Your task to perform on an android device: Go to privacy settings Image 0: 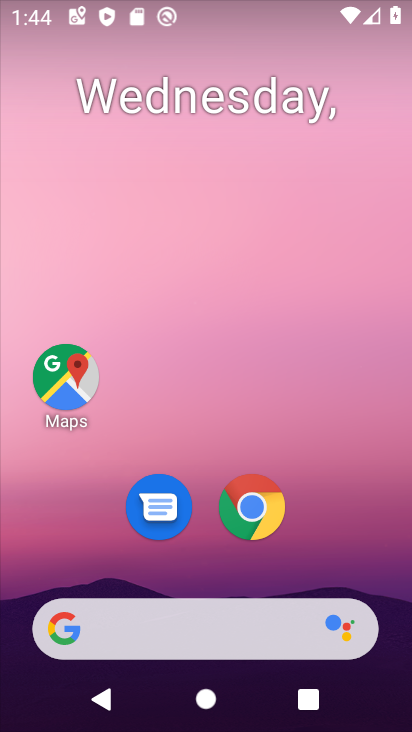
Step 0: drag from (362, 568) to (312, 200)
Your task to perform on an android device: Go to privacy settings Image 1: 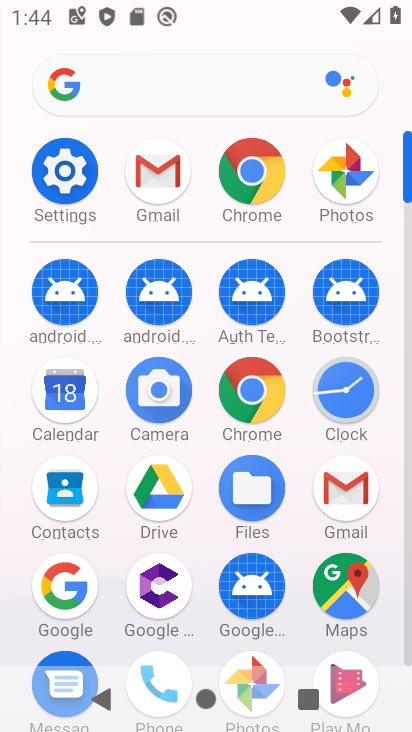
Step 1: click (84, 178)
Your task to perform on an android device: Go to privacy settings Image 2: 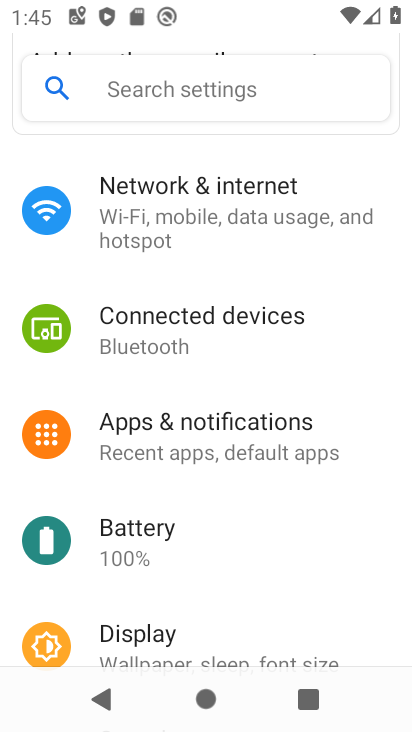
Step 2: drag from (214, 556) to (224, 250)
Your task to perform on an android device: Go to privacy settings Image 3: 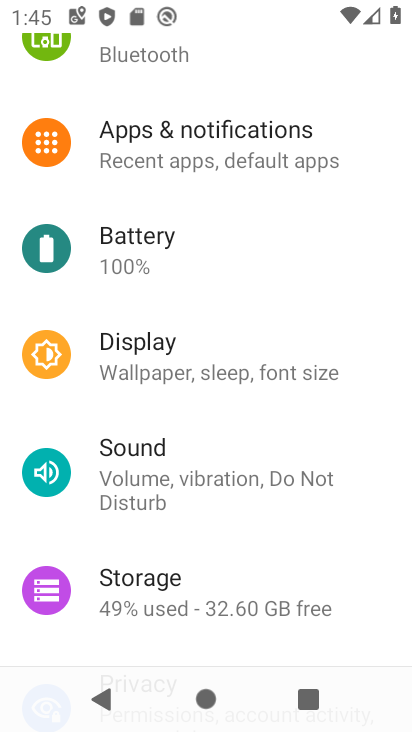
Step 3: drag from (254, 583) to (254, 302)
Your task to perform on an android device: Go to privacy settings Image 4: 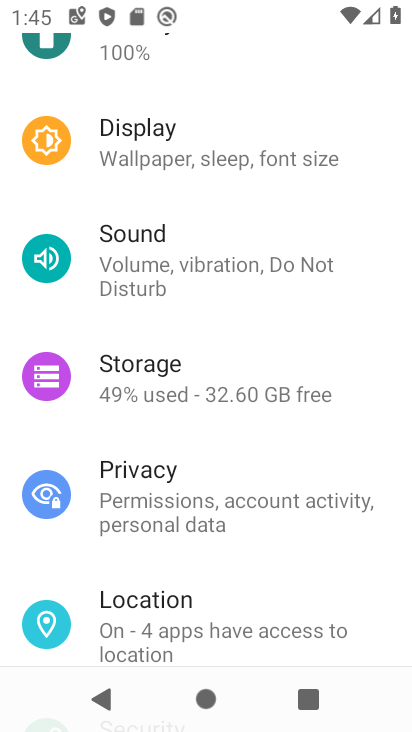
Step 4: drag from (253, 629) to (249, 336)
Your task to perform on an android device: Go to privacy settings Image 5: 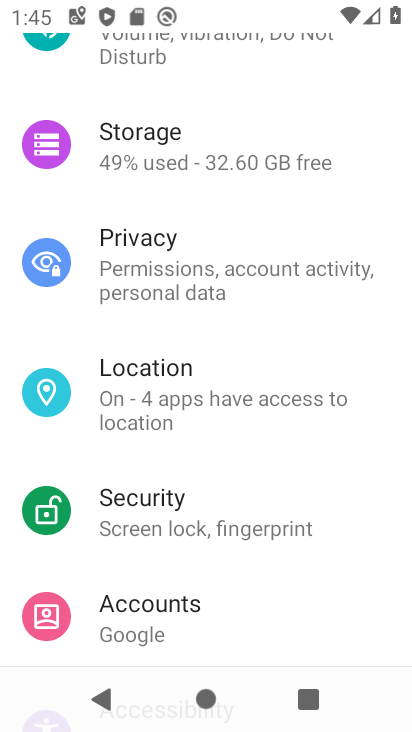
Step 5: drag from (229, 620) to (231, 383)
Your task to perform on an android device: Go to privacy settings Image 6: 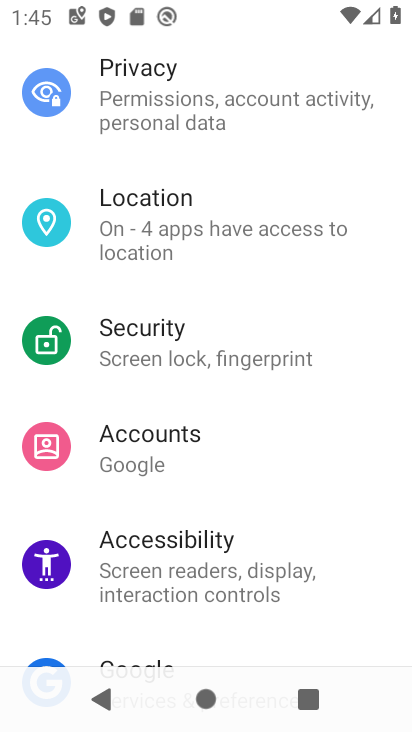
Step 6: drag from (167, 598) to (172, 299)
Your task to perform on an android device: Go to privacy settings Image 7: 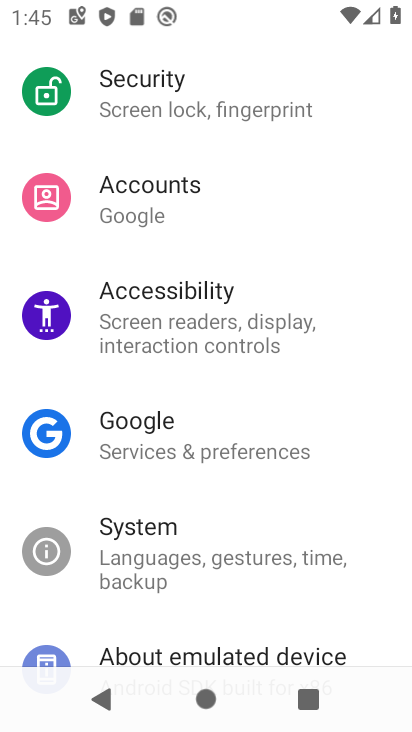
Step 7: drag from (175, 563) to (178, 313)
Your task to perform on an android device: Go to privacy settings Image 8: 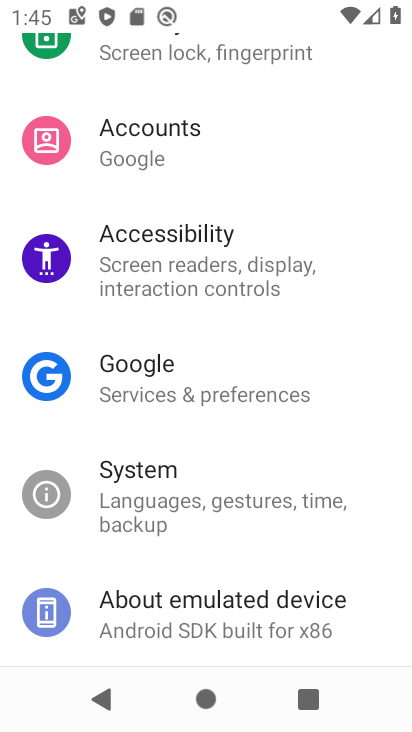
Step 8: drag from (183, 554) to (182, 221)
Your task to perform on an android device: Go to privacy settings Image 9: 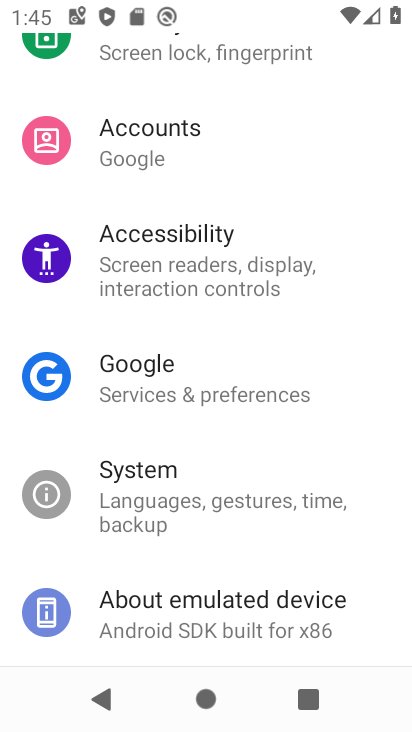
Step 9: drag from (177, 96) to (211, 501)
Your task to perform on an android device: Go to privacy settings Image 10: 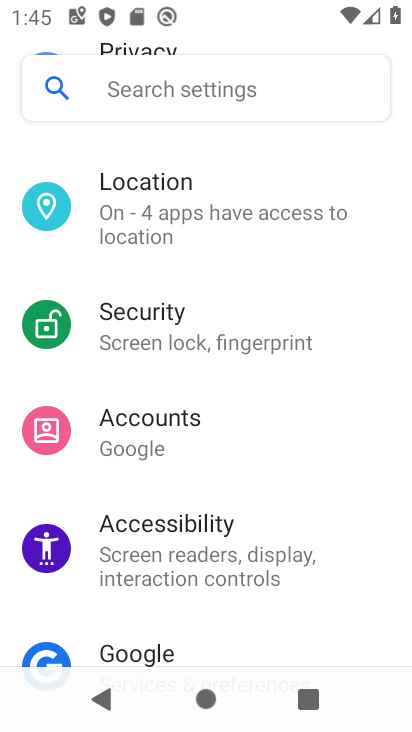
Step 10: drag from (173, 198) to (225, 497)
Your task to perform on an android device: Go to privacy settings Image 11: 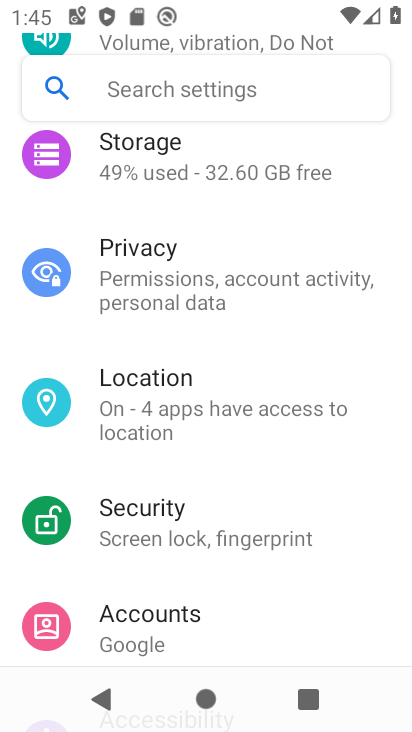
Step 11: click (142, 271)
Your task to perform on an android device: Go to privacy settings Image 12: 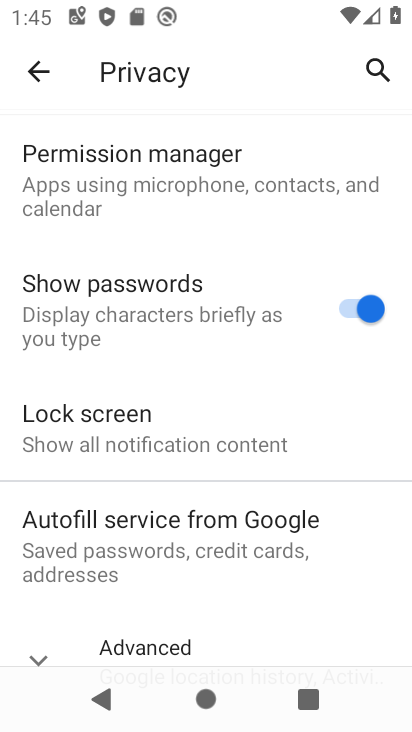
Step 12: task complete